Your task to perform on an android device: open a bookmark in the chrome app Image 0: 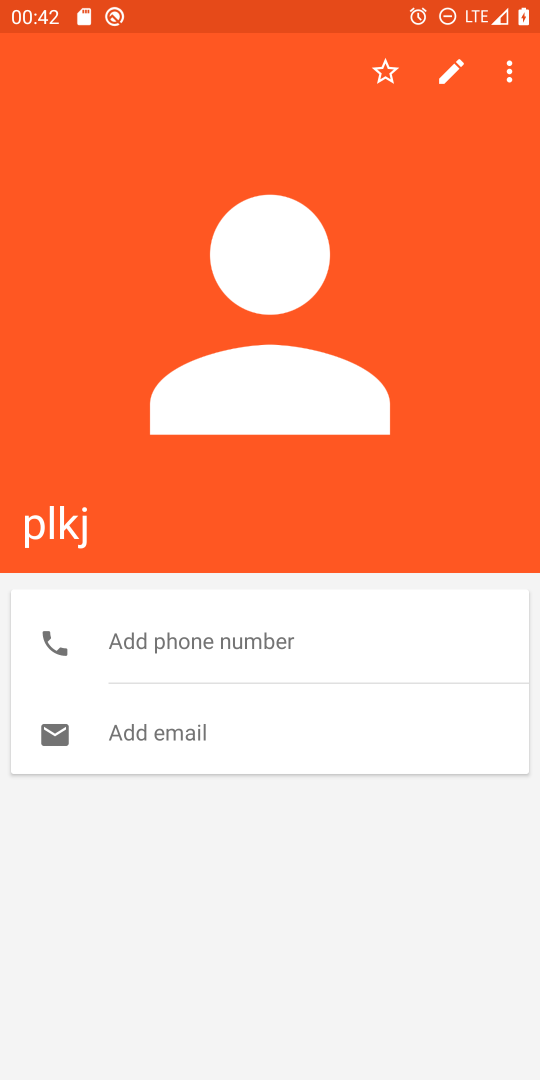
Step 0: press home button
Your task to perform on an android device: open a bookmark in the chrome app Image 1: 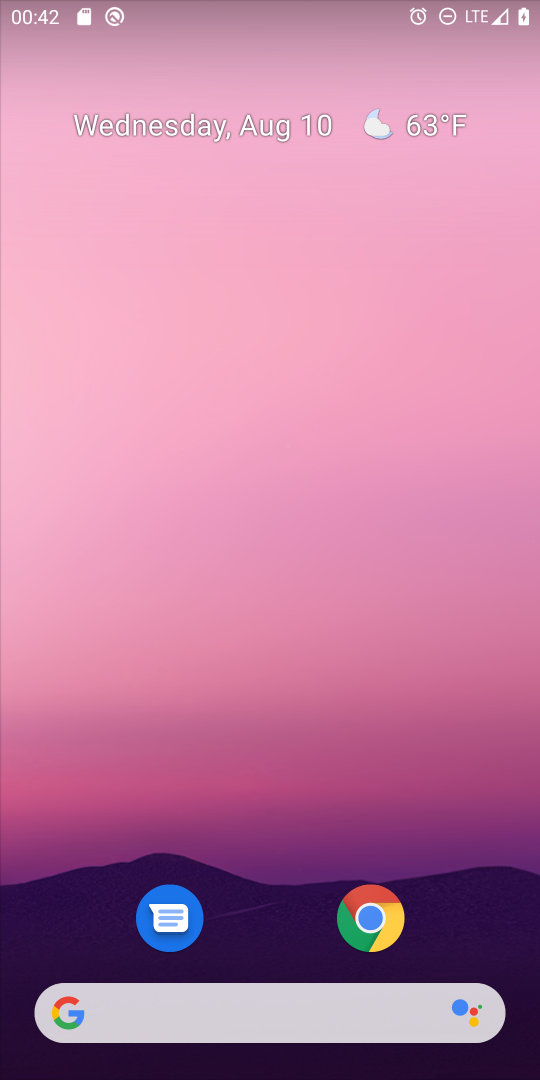
Step 1: drag from (266, 874) to (399, 160)
Your task to perform on an android device: open a bookmark in the chrome app Image 2: 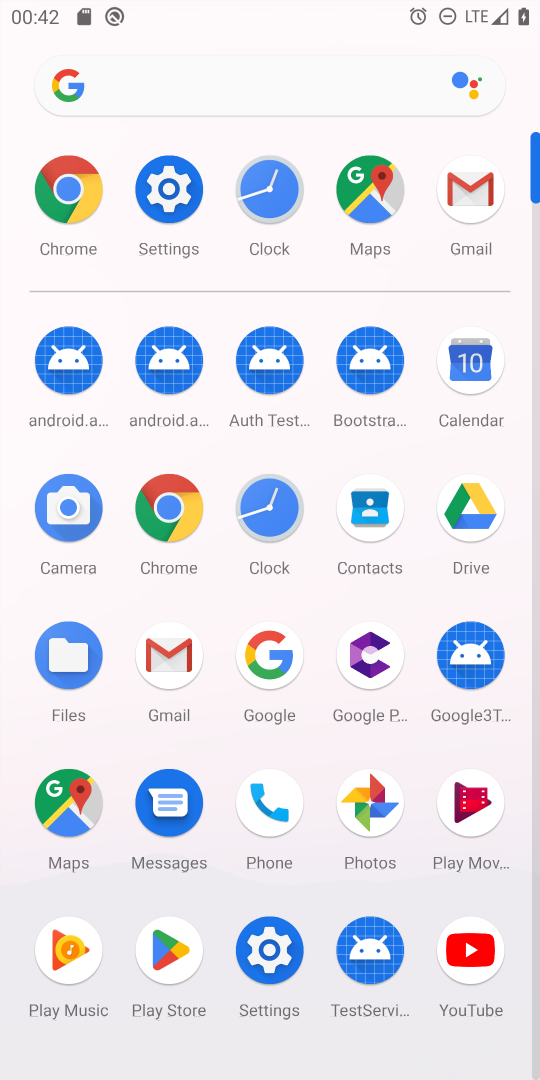
Step 2: click (164, 512)
Your task to perform on an android device: open a bookmark in the chrome app Image 3: 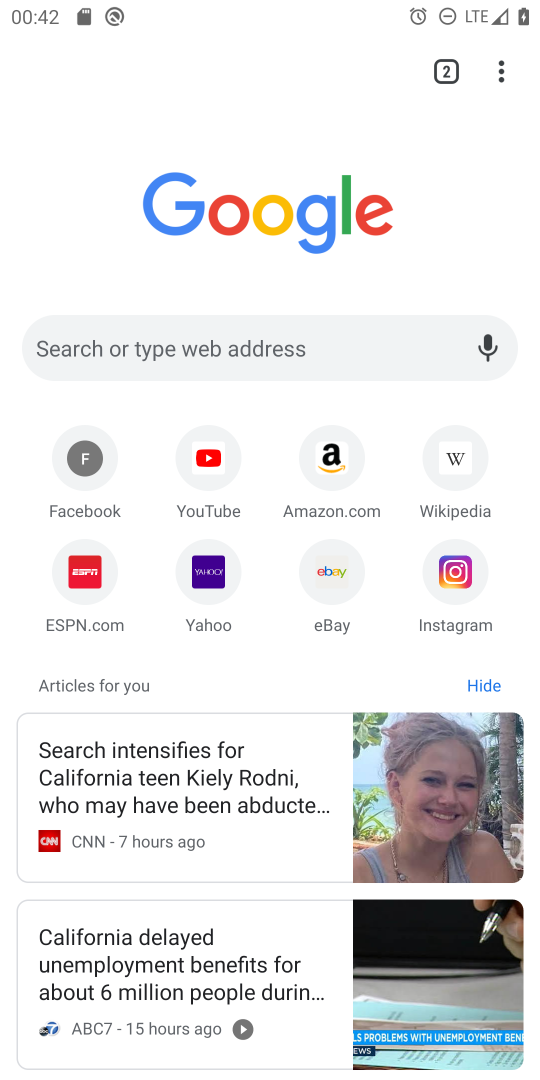
Step 3: drag from (519, 56) to (379, 345)
Your task to perform on an android device: open a bookmark in the chrome app Image 4: 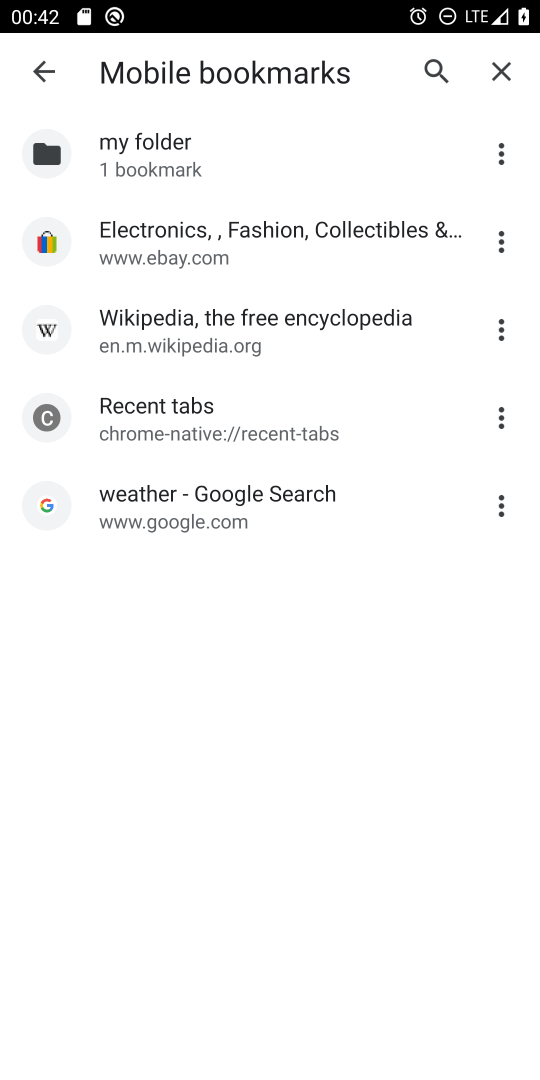
Step 4: click (195, 320)
Your task to perform on an android device: open a bookmark in the chrome app Image 5: 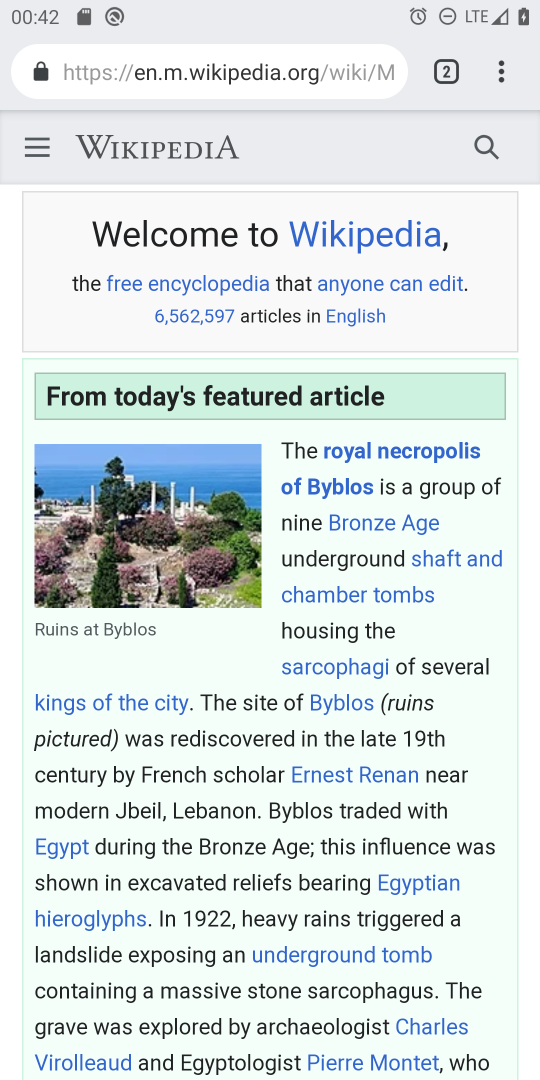
Step 5: task complete